Your task to perform on an android device: add a contact in the contacts app Image 0: 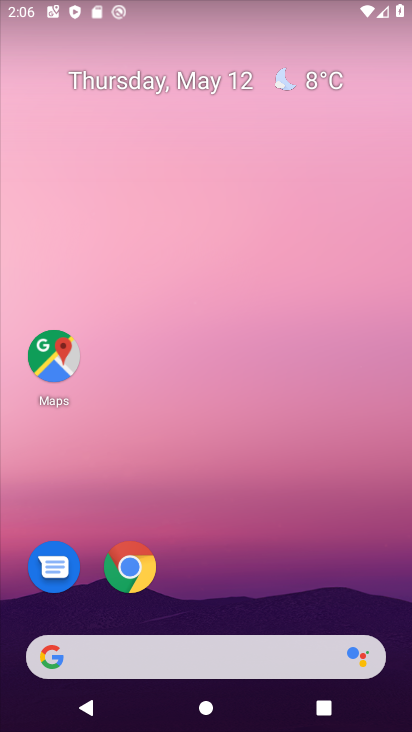
Step 0: drag from (204, 612) to (220, 94)
Your task to perform on an android device: add a contact in the contacts app Image 1: 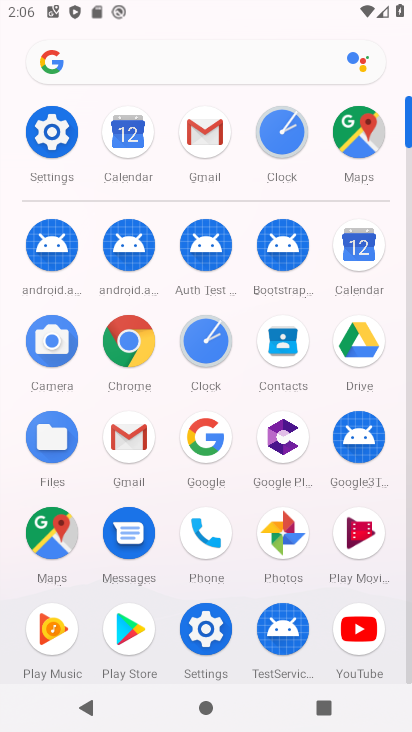
Step 1: click (278, 340)
Your task to perform on an android device: add a contact in the contacts app Image 2: 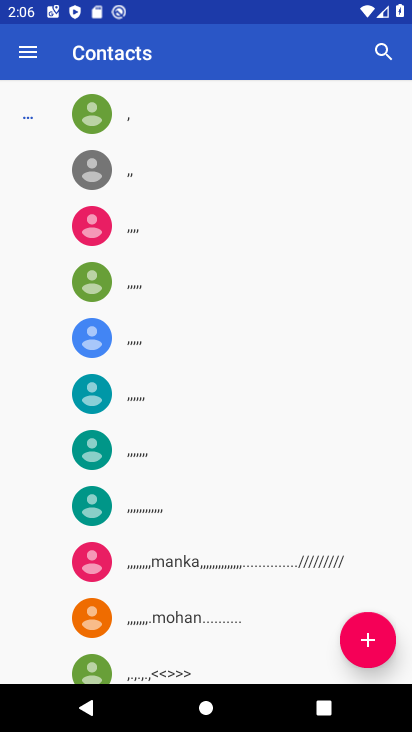
Step 2: click (370, 636)
Your task to perform on an android device: add a contact in the contacts app Image 3: 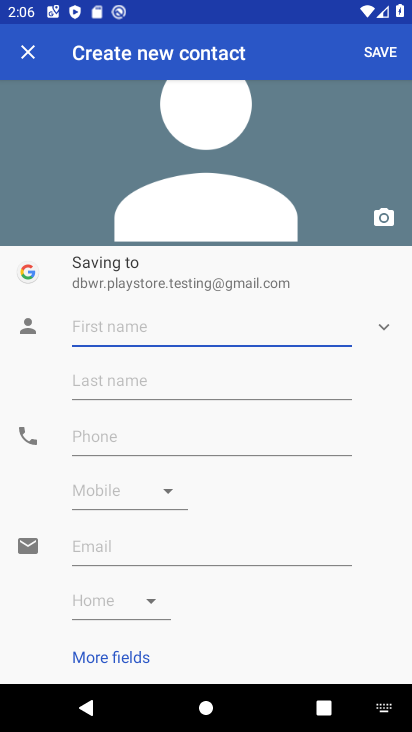
Step 3: type "nbngddtdt"
Your task to perform on an android device: add a contact in the contacts app Image 4: 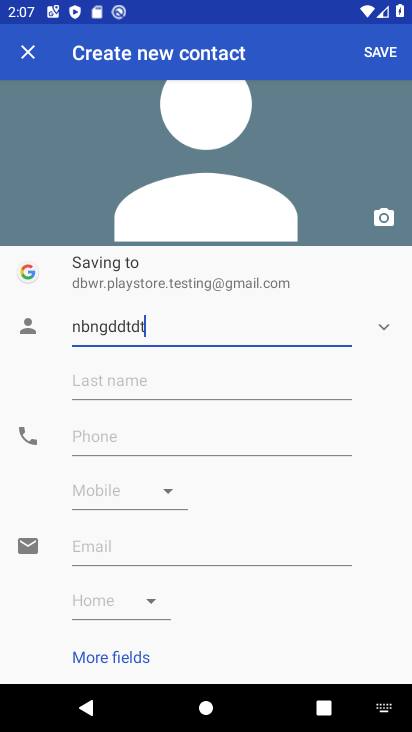
Step 4: click (383, 51)
Your task to perform on an android device: add a contact in the contacts app Image 5: 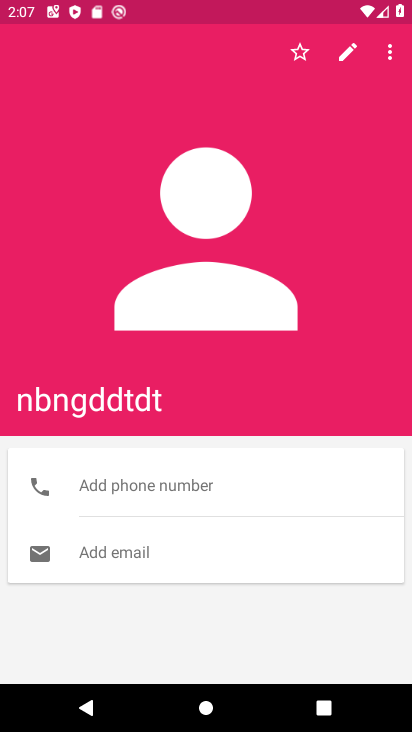
Step 5: task complete